Your task to perform on an android device: turn off airplane mode Image 0: 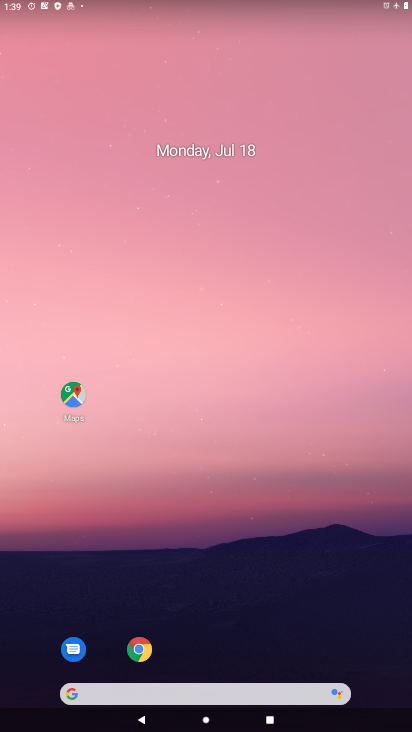
Step 0: drag from (198, 688) to (279, 66)
Your task to perform on an android device: turn off airplane mode Image 1: 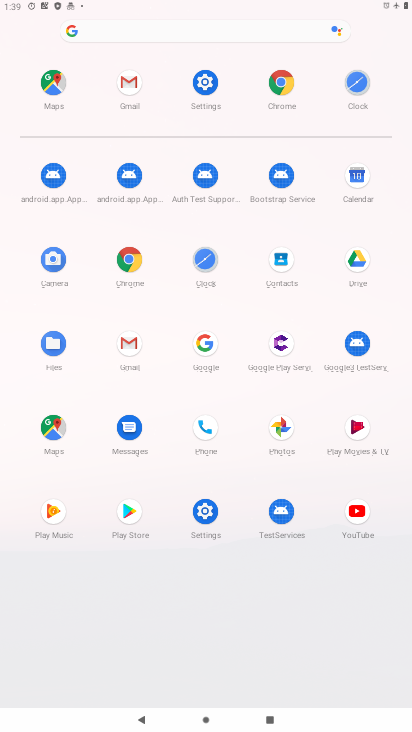
Step 1: click (199, 518)
Your task to perform on an android device: turn off airplane mode Image 2: 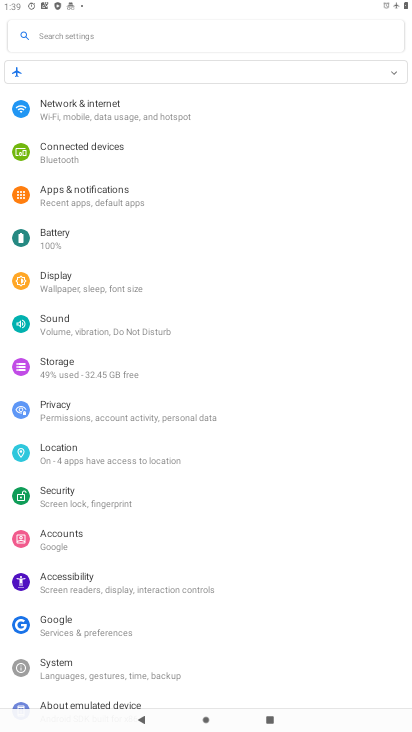
Step 2: click (147, 86)
Your task to perform on an android device: turn off airplane mode Image 3: 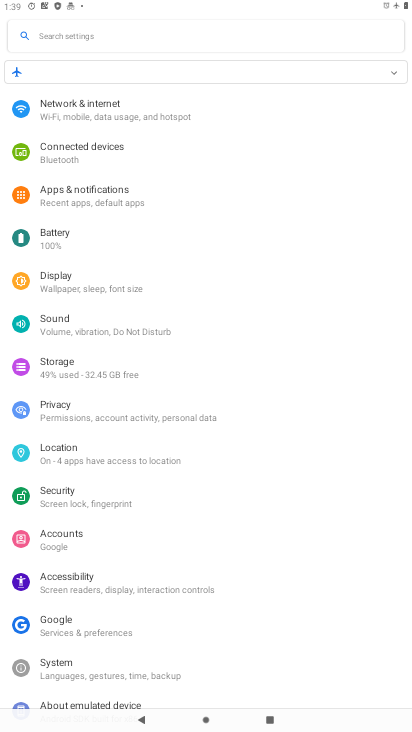
Step 3: click (143, 104)
Your task to perform on an android device: turn off airplane mode Image 4: 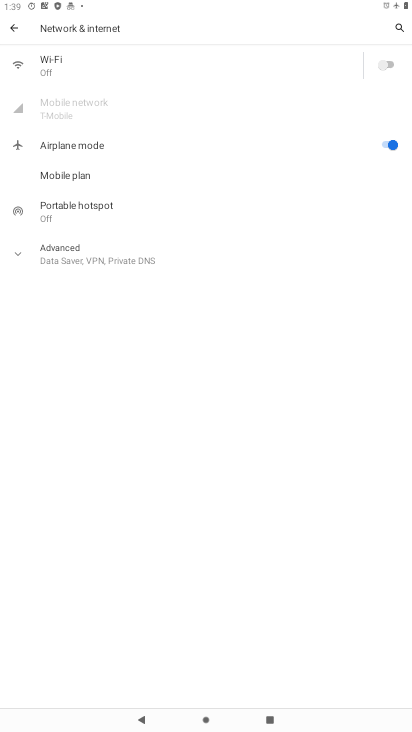
Step 4: click (376, 145)
Your task to perform on an android device: turn off airplane mode Image 5: 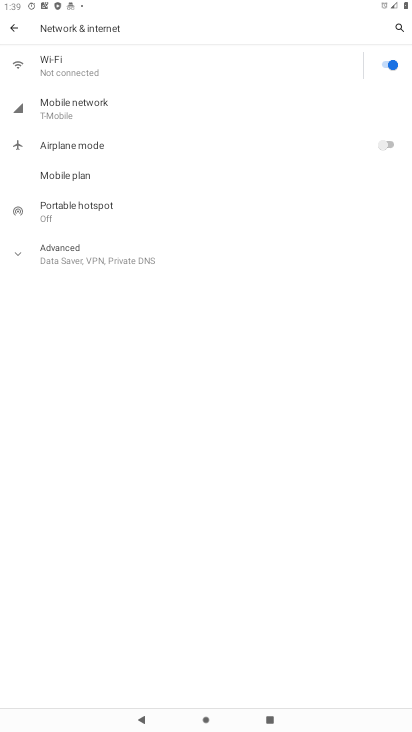
Step 5: task complete